Your task to perform on an android device: empty trash in google photos Image 0: 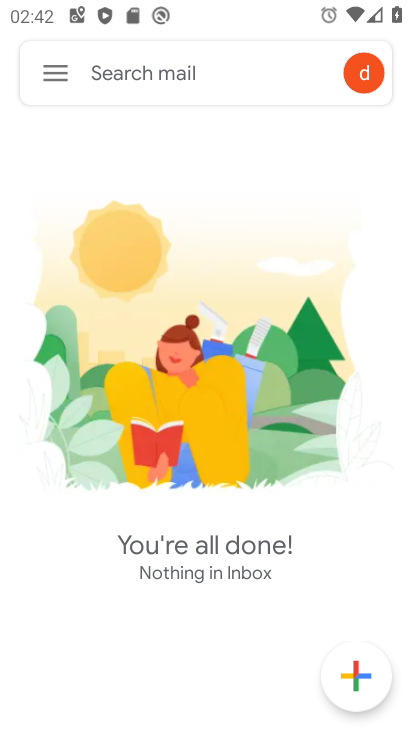
Step 0: press home button
Your task to perform on an android device: empty trash in google photos Image 1: 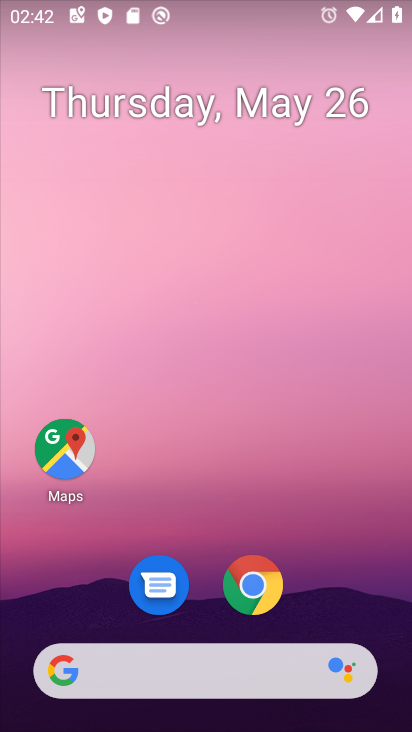
Step 1: drag from (232, 507) to (276, 42)
Your task to perform on an android device: empty trash in google photos Image 2: 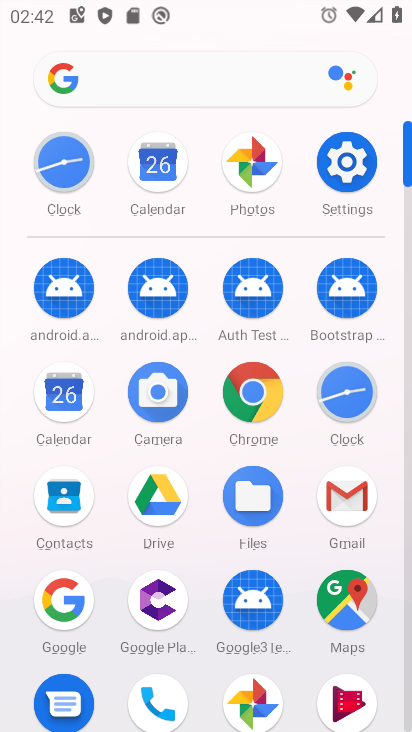
Step 2: click (258, 163)
Your task to perform on an android device: empty trash in google photos Image 3: 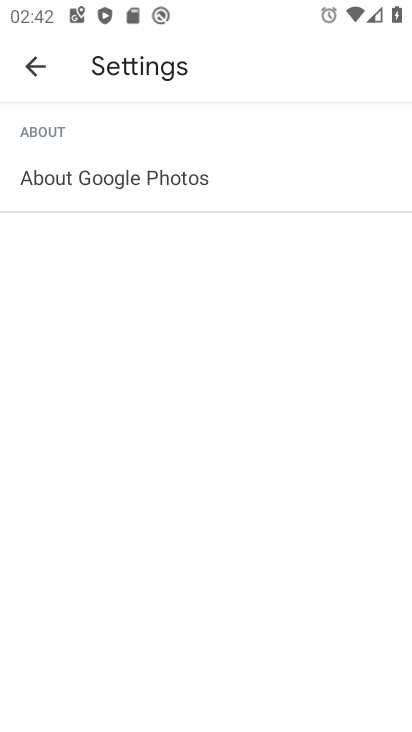
Step 3: click (31, 62)
Your task to perform on an android device: empty trash in google photos Image 4: 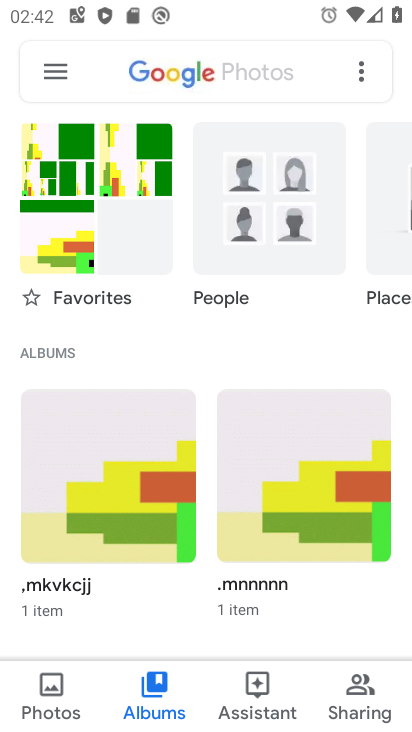
Step 4: click (45, 63)
Your task to perform on an android device: empty trash in google photos Image 5: 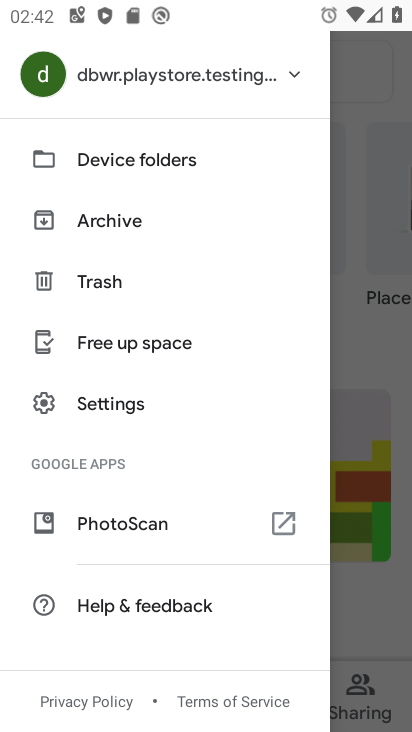
Step 5: click (147, 278)
Your task to perform on an android device: empty trash in google photos Image 6: 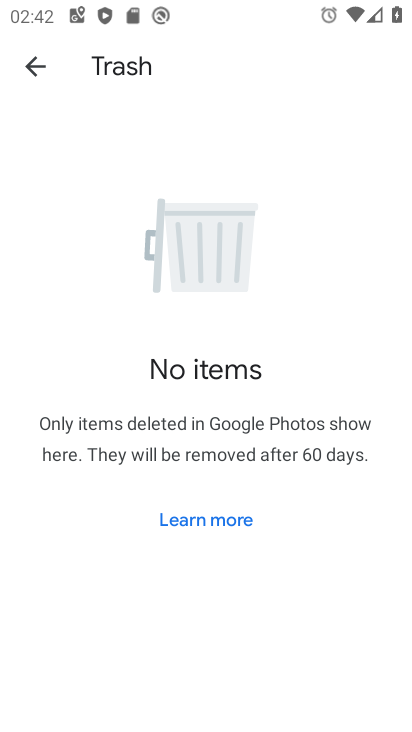
Step 6: task complete